Your task to perform on an android device: Open Chrome and go to settings Image 0: 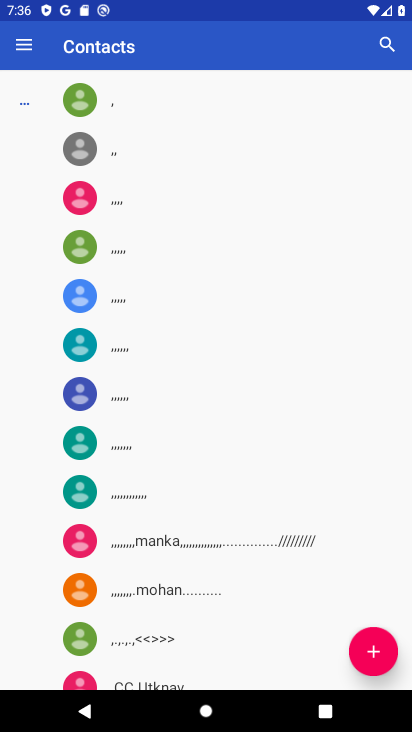
Step 0: press home button
Your task to perform on an android device: Open Chrome and go to settings Image 1: 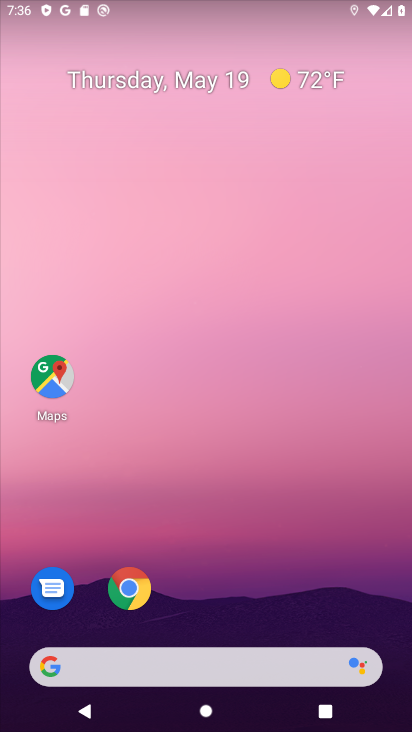
Step 1: click (130, 584)
Your task to perform on an android device: Open Chrome and go to settings Image 2: 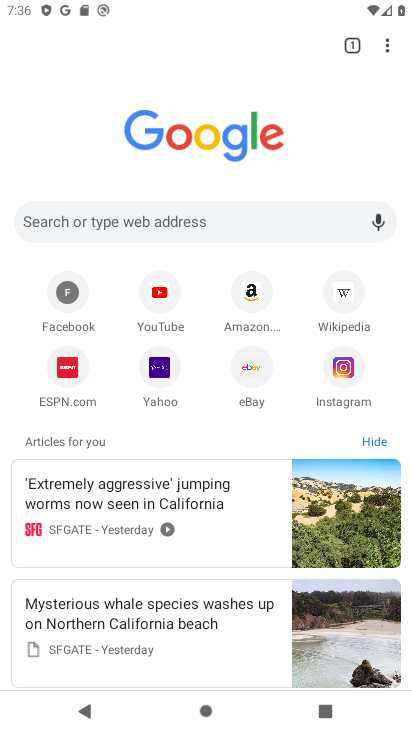
Step 2: click (386, 57)
Your task to perform on an android device: Open Chrome and go to settings Image 3: 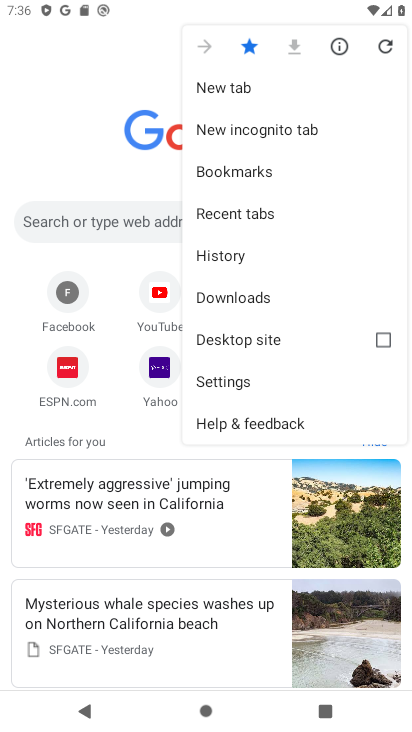
Step 3: click (224, 387)
Your task to perform on an android device: Open Chrome and go to settings Image 4: 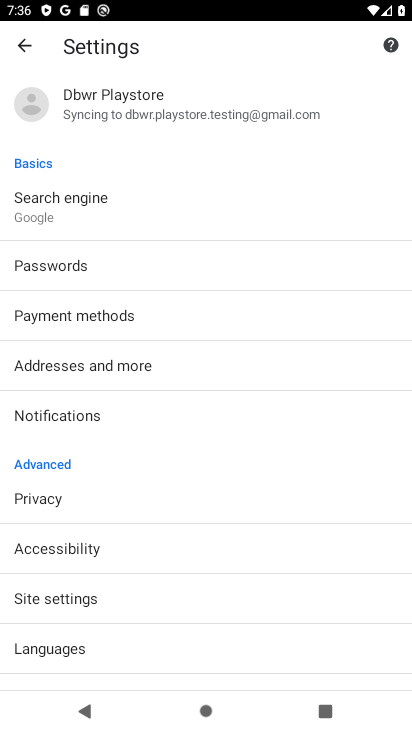
Step 4: task complete